Your task to perform on an android device: turn off location Image 0: 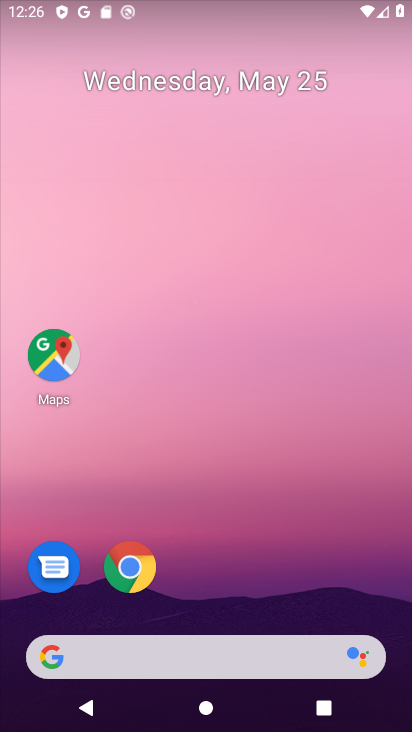
Step 0: drag from (280, 574) to (193, 113)
Your task to perform on an android device: turn off location Image 1: 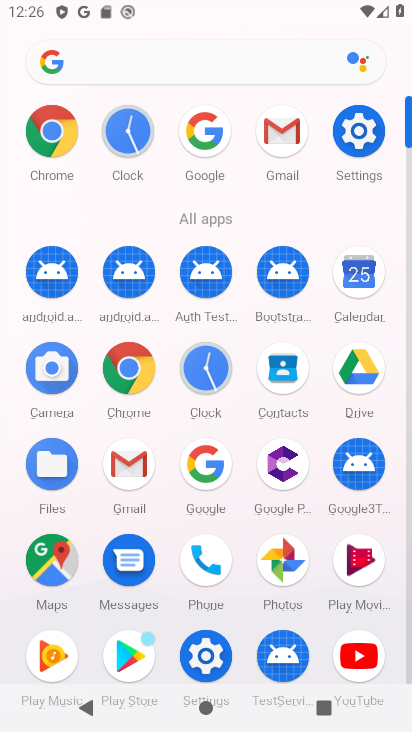
Step 1: click (358, 131)
Your task to perform on an android device: turn off location Image 2: 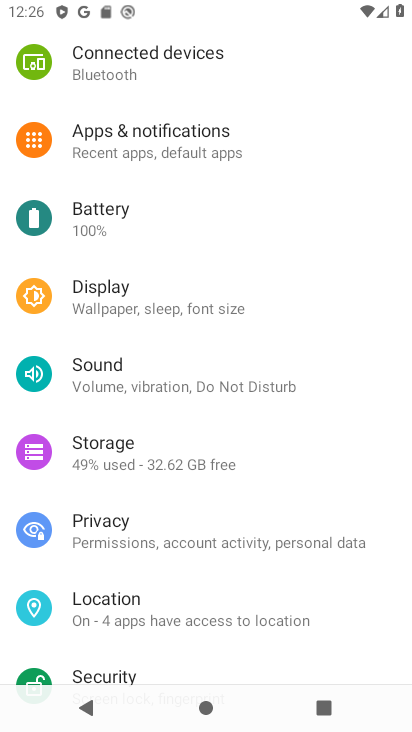
Step 2: drag from (210, 207) to (179, 416)
Your task to perform on an android device: turn off location Image 3: 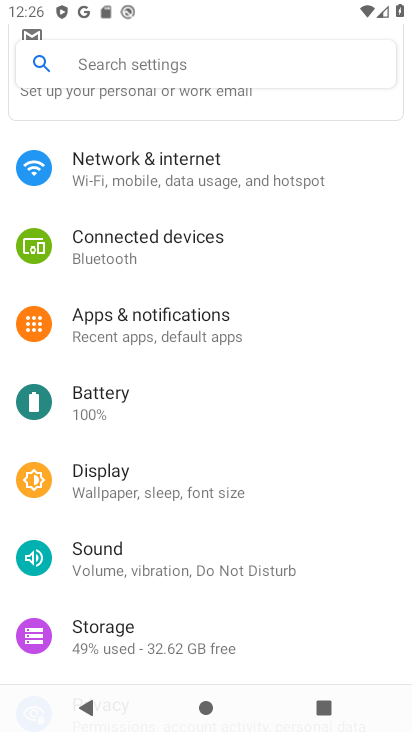
Step 3: drag from (184, 500) to (189, 413)
Your task to perform on an android device: turn off location Image 4: 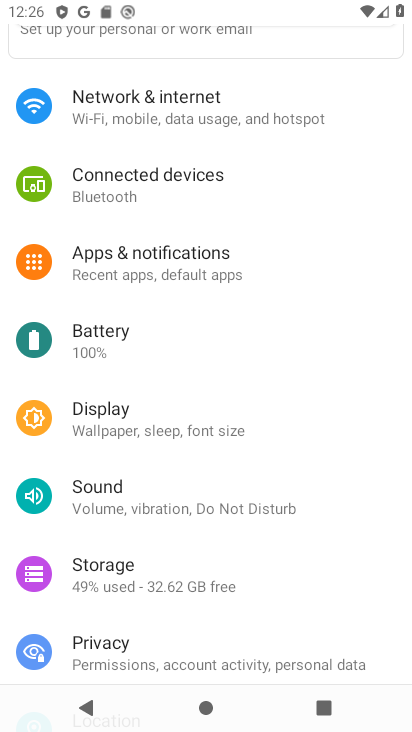
Step 4: drag from (172, 539) to (198, 453)
Your task to perform on an android device: turn off location Image 5: 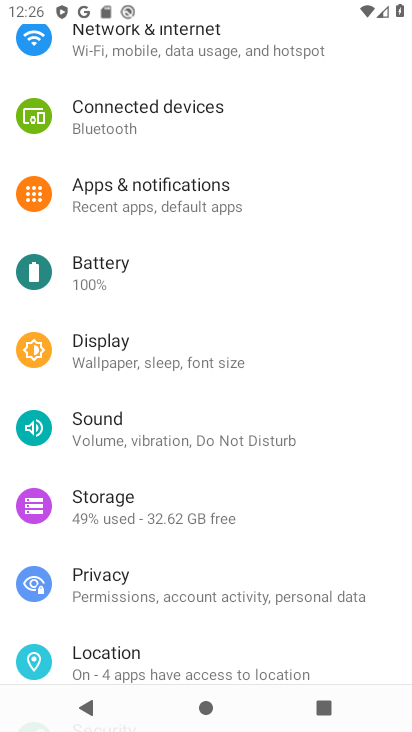
Step 5: drag from (162, 619) to (223, 502)
Your task to perform on an android device: turn off location Image 6: 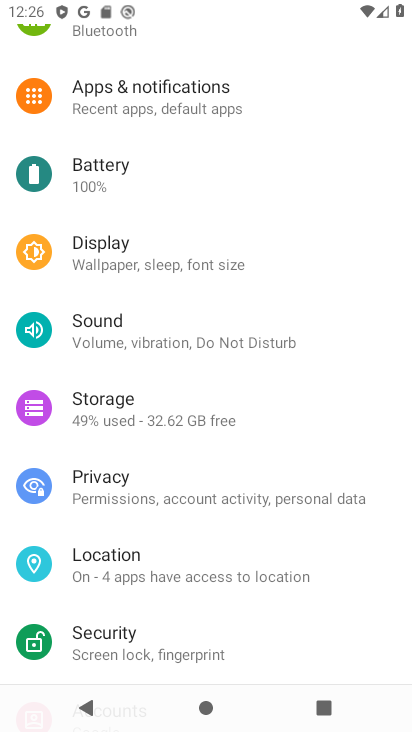
Step 6: click (159, 576)
Your task to perform on an android device: turn off location Image 7: 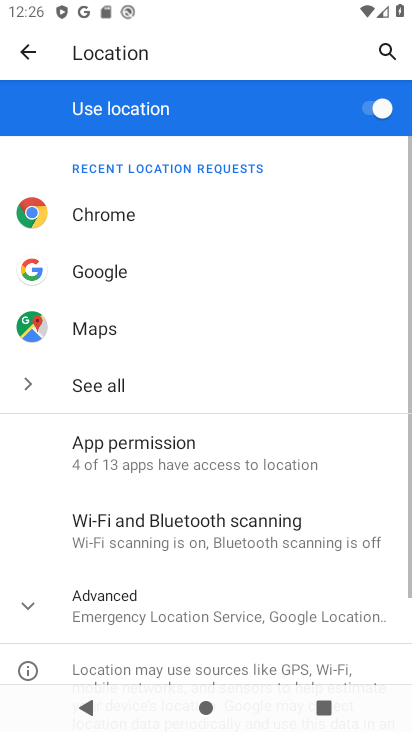
Step 7: click (372, 103)
Your task to perform on an android device: turn off location Image 8: 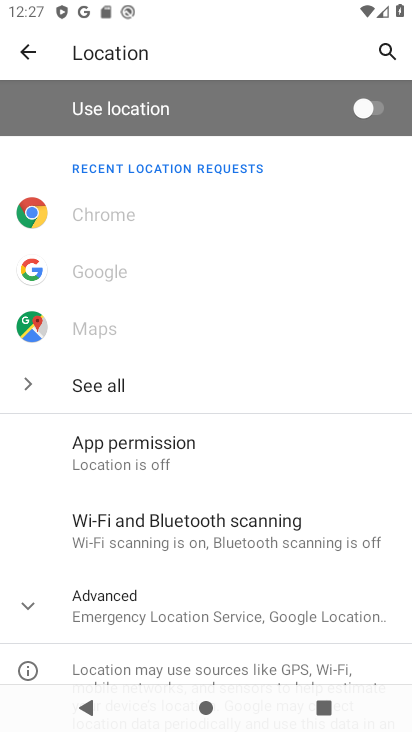
Step 8: task complete